Your task to perform on an android device: search for starred emails in the gmail app Image 0: 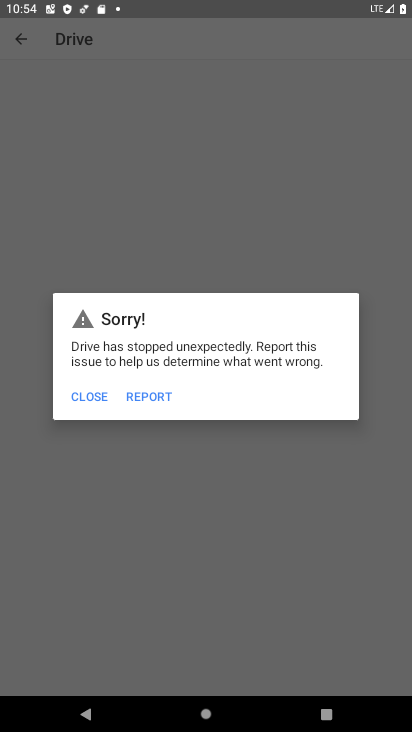
Step 0: click (80, 400)
Your task to perform on an android device: search for starred emails in the gmail app Image 1: 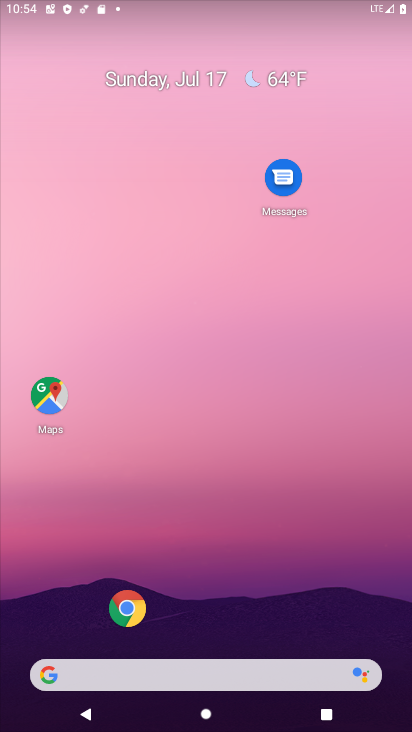
Step 1: press home button
Your task to perform on an android device: search for starred emails in the gmail app Image 2: 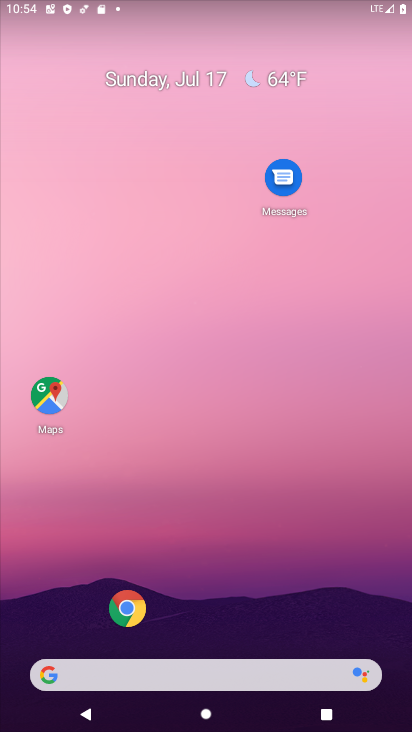
Step 2: drag from (59, 655) to (228, 111)
Your task to perform on an android device: search for starred emails in the gmail app Image 3: 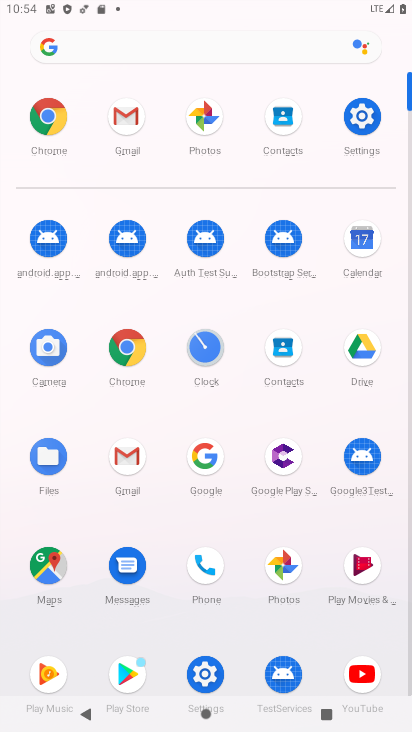
Step 3: click (111, 431)
Your task to perform on an android device: search for starred emails in the gmail app Image 4: 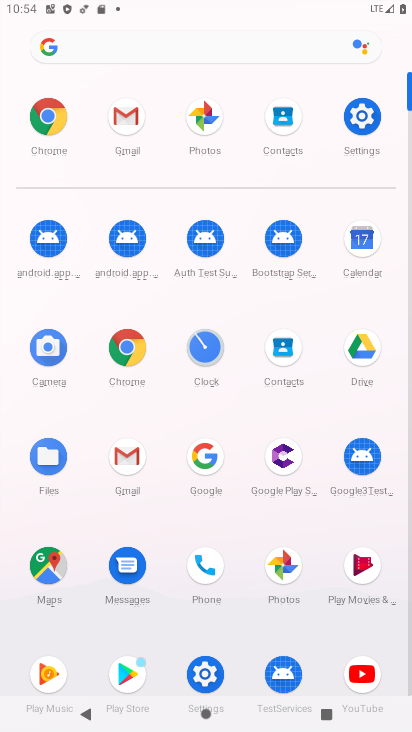
Step 4: click (122, 455)
Your task to perform on an android device: search for starred emails in the gmail app Image 5: 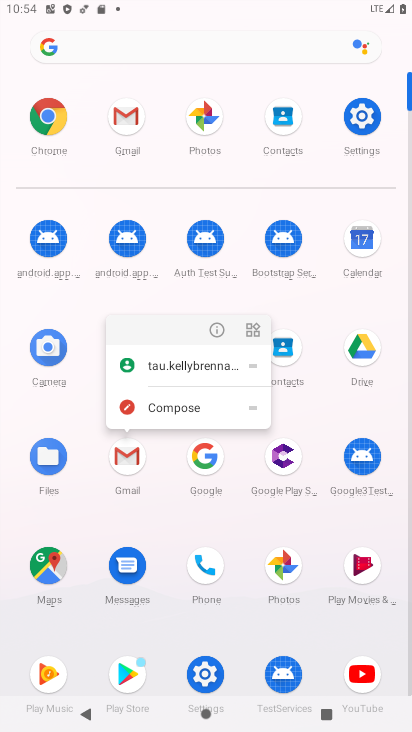
Step 5: click (126, 449)
Your task to perform on an android device: search for starred emails in the gmail app Image 6: 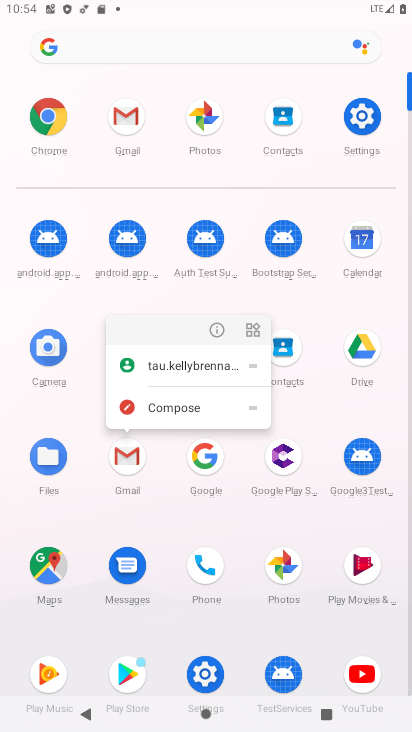
Step 6: click (134, 458)
Your task to perform on an android device: search for starred emails in the gmail app Image 7: 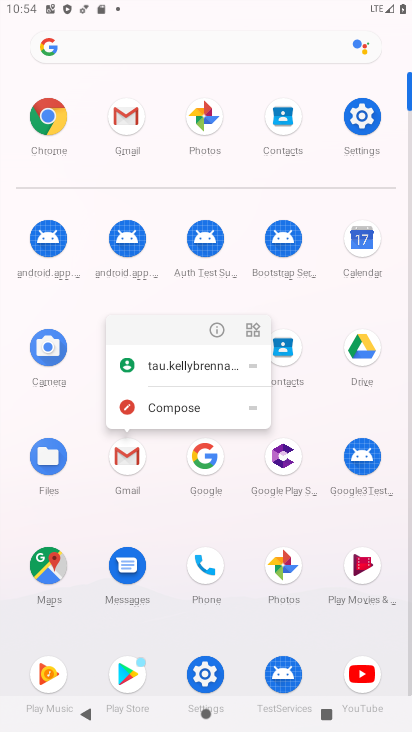
Step 7: task complete